Your task to perform on an android device: stop showing notifications on the lock screen Image 0: 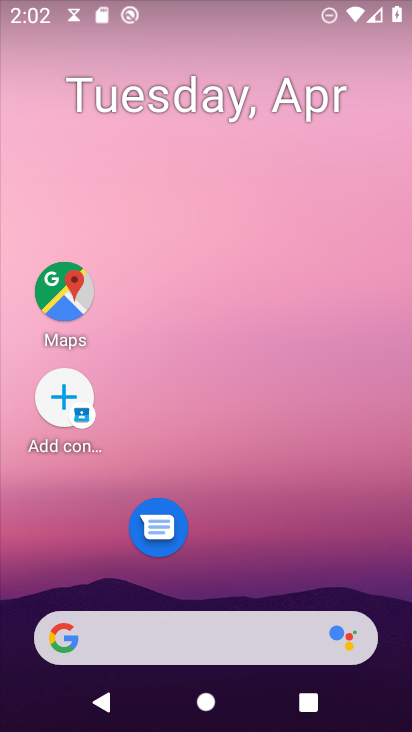
Step 0: drag from (236, 568) to (212, 46)
Your task to perform on an android device: stop showing notifications on the lock screen Image 1: 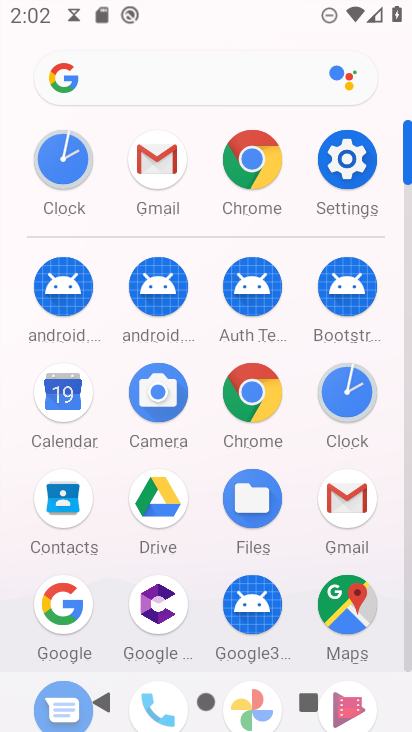
Step 1: click (349, 160)
Your task to perform on an android device: stop showing notifications on the lock screen Image 2: 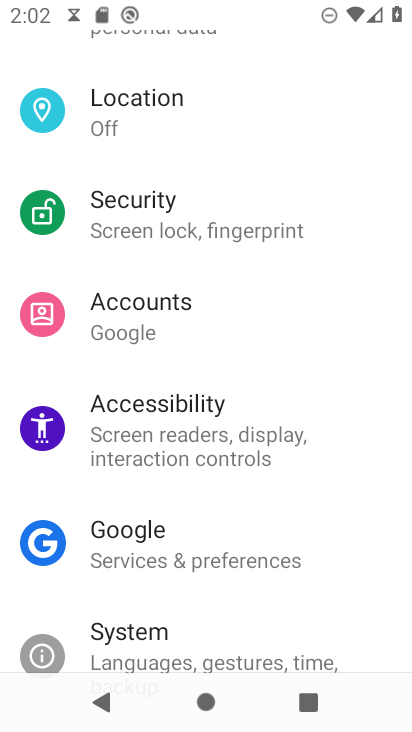
Step 2: drag from (216, 298) to (215, 363)
Your task to perform on an android device: stop showing notifications on the lock screen Image 3: 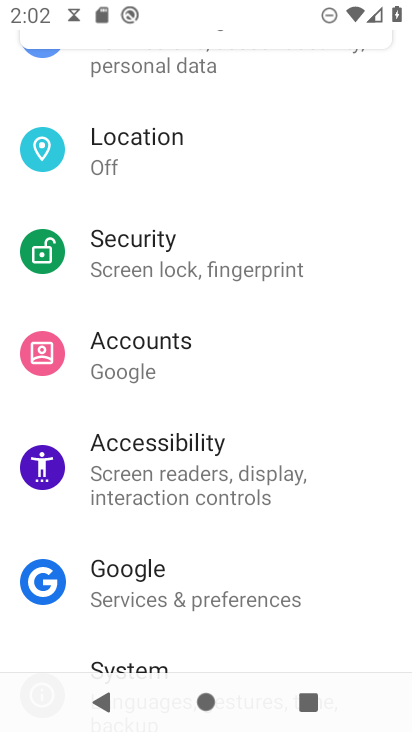
Step 3: drag from (221, 230) to (250, 344)
Your task to perform on an android device: stop showing notifications on the lock screen Image 4: 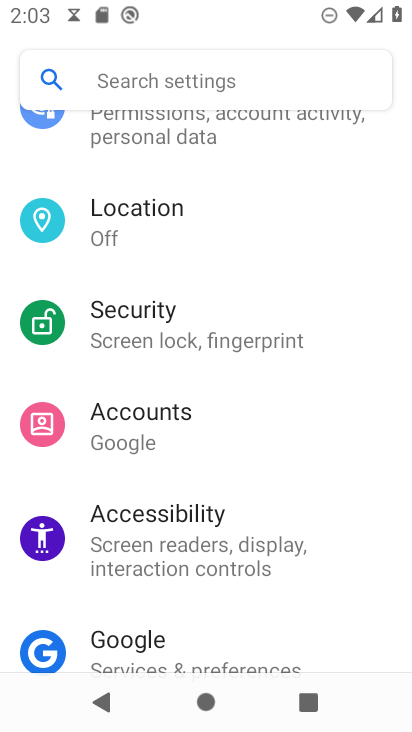
Step 4: drag from (211, 237) to (253, 324)
Your task to perform on an android device: stop showing notifications on the lock screen Image 5: 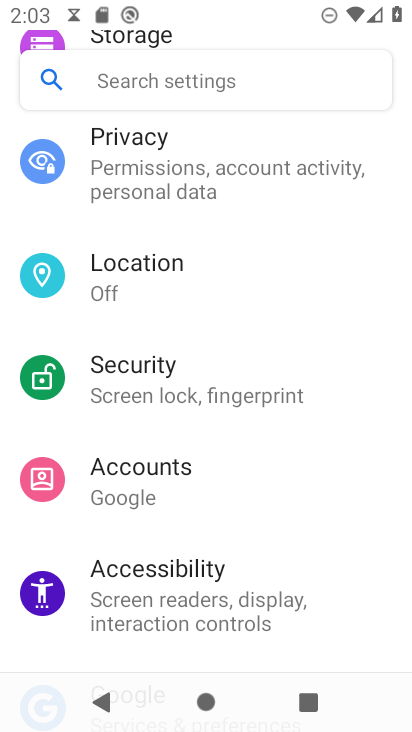
Step 5: drag from (229, 193) to (269, 322)
Your task to perform on an android device: stop showing notifications on the lock screen Image 6: 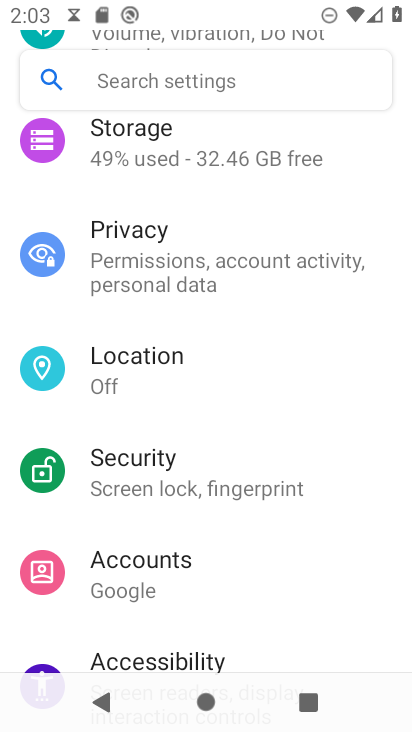
Step 6: drag from (223, 224) to (277, 329)
Your task to perform on an android device: stop showing notifications on the lock screen Image 7: 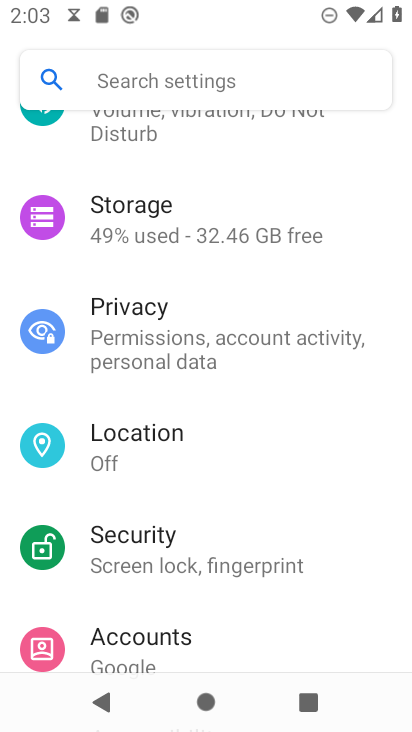
Step 7: drag from (223, 206) to (295, 354)
Your task to perform on an android device: stop showing notifications on the lock screen Image 8: 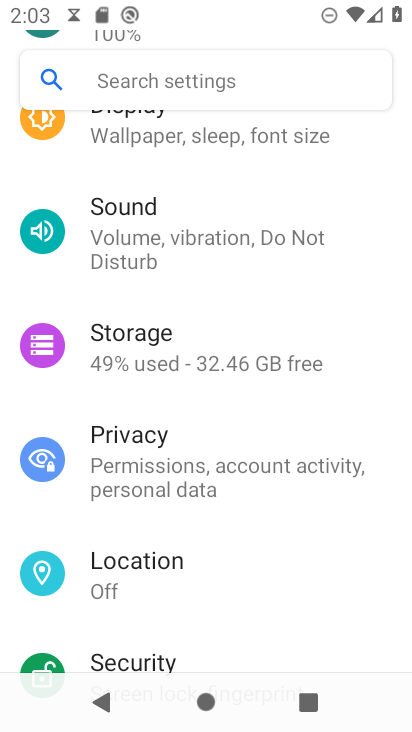
Step 8: drag from (236, 218) to (310, 331)
Your task to perform on an android device: stop showing notifications on the lock screen Image 9: 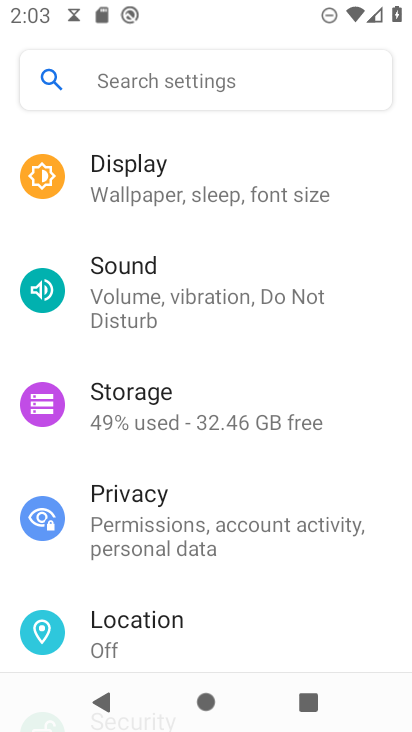
Step 9: drag from (235, 170) to (312, 311)
Your task to perform on an android device: stop showing notifications on the lock screen Image 10: 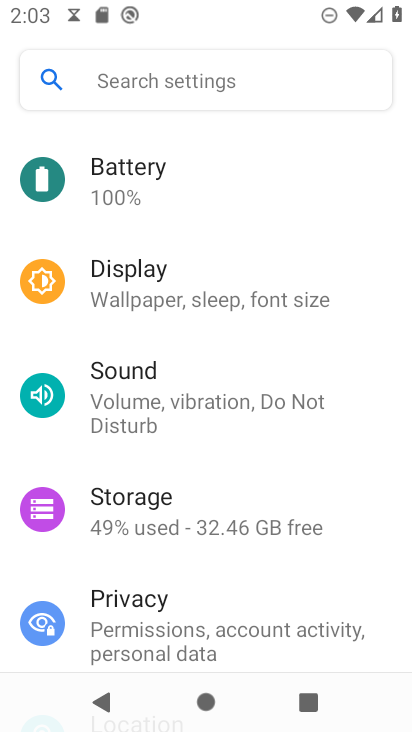
Step 10: drag from (252, 219) to (320, 334)
Your task to perform on an android device: stop showing notifications on the lock screen Image 11: 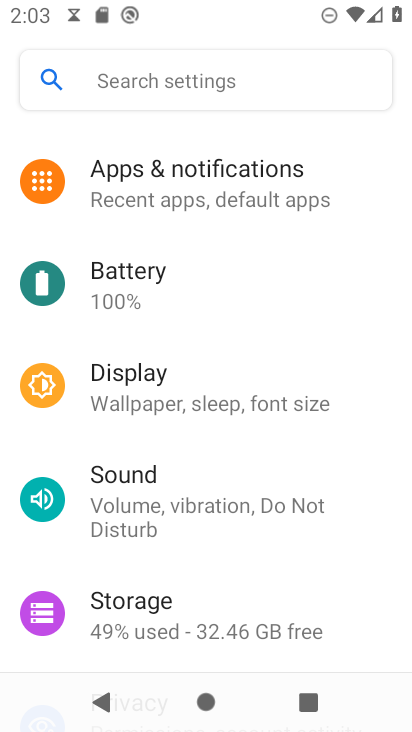
Step 11: click (255, 174)
Your task to perform on an android device: stop showing notifications on the lock screen Image 12: 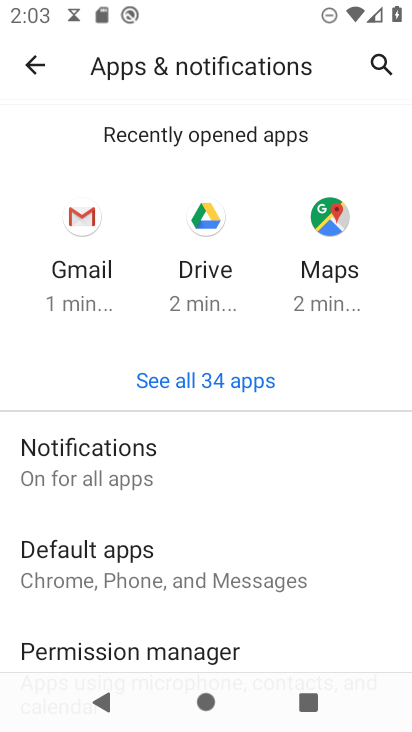
Step 12: click (111, 449)
Your task to perform on an android device: stop showing notifications on the lock screen Image 13: 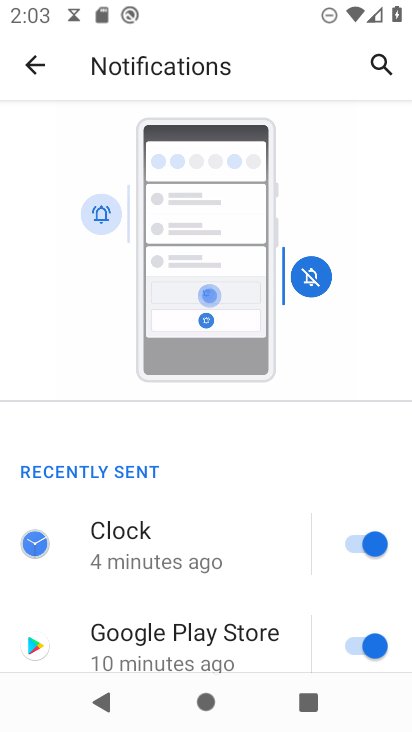
Step 13: drag from (207, 515) to (195, 272)
Your task to perform on an android device: stop showing notifications on the lock screen Image 14: 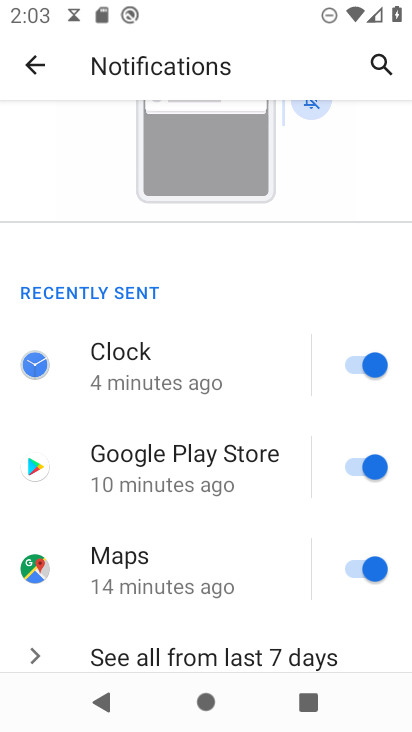
Step 14: drag from (166, 410) to (199, 258)
Your task to perform on an android device: stop showing notifications on the lock screen Image 15: 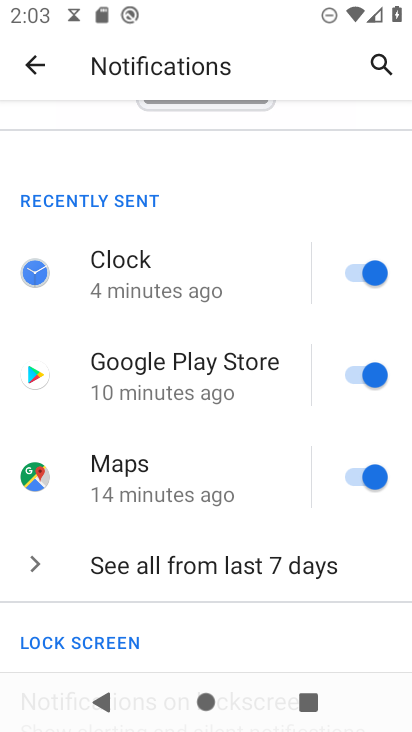
Step 15: drag from (161, 439) to (198, 261)
Your task to perform on an android device: stop showing notifications on the lock screen Image 16: 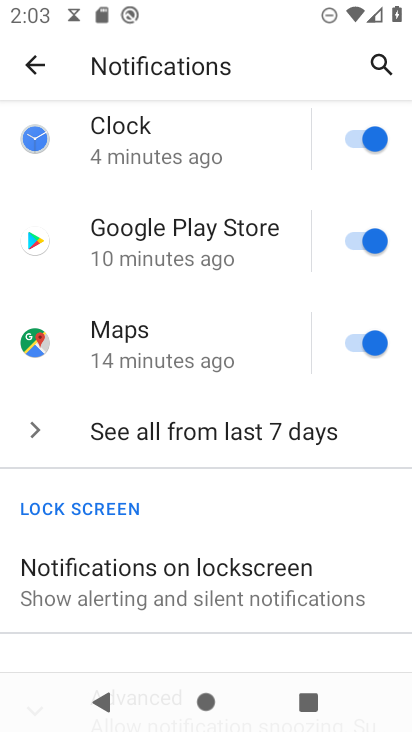
Step 16: drag from (157, 504) to (196, 288)
Your task to perform on an android device: stop showing notifications on the lock screen Image 17: 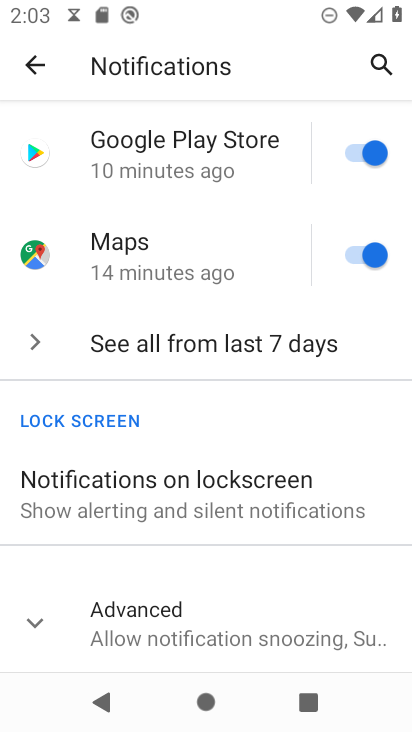
Step 17: click (147, 474)
Your task to perform on an android device: stop showing notifications on the lock screen Image 18: 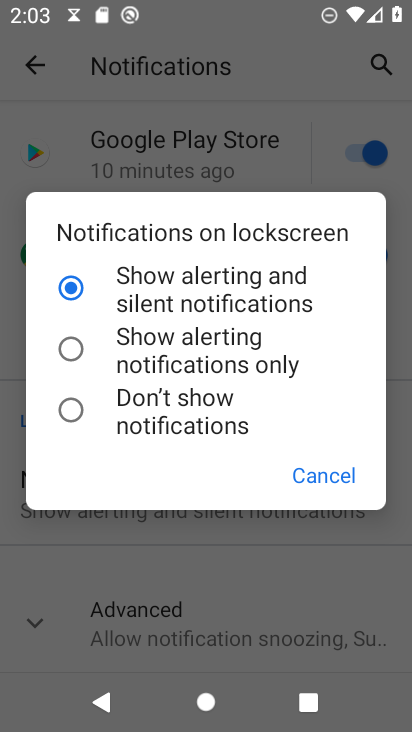
Step 18: click (76, 405)
Your task to perform on an android device: stop showing notifications on the lock screen Image 19: 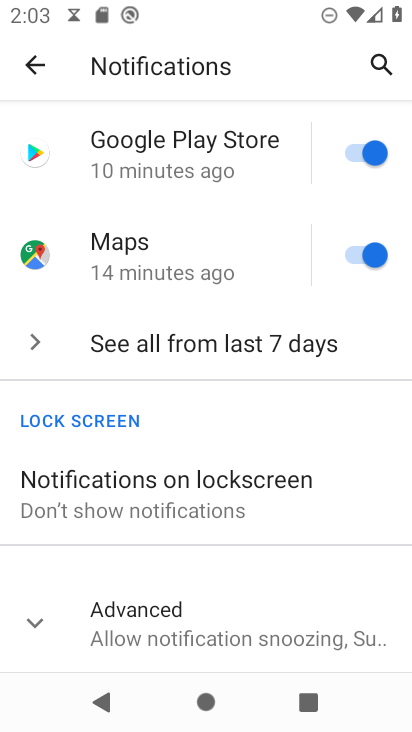
Step 19: task complete